Your task to perform on an android device: Search for flights from NYC to London Image 0: 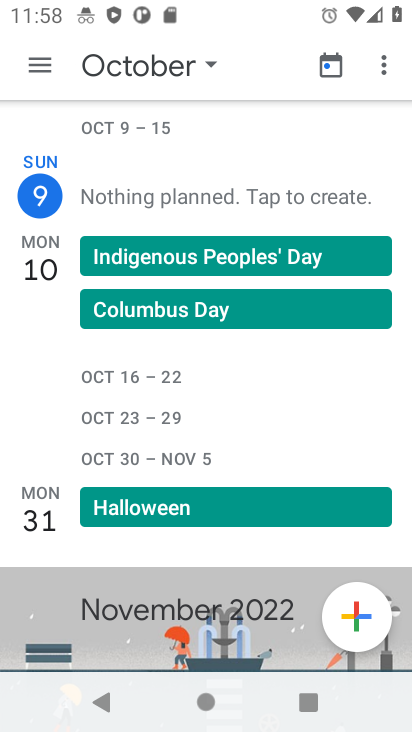
Step 0: press home button
Your task to perform on an android device: Search for flights from NYC to London Image 1: 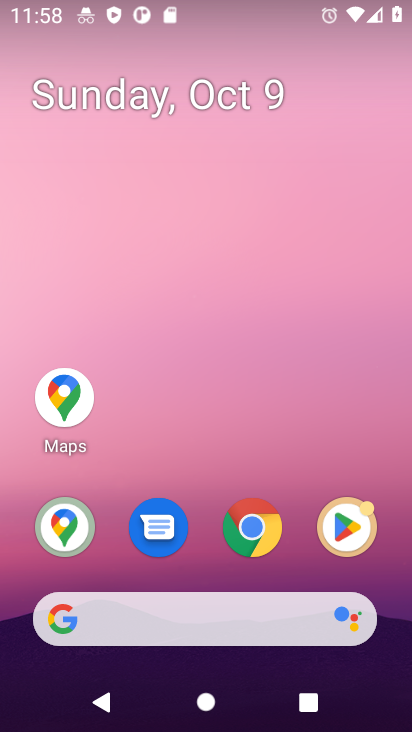
Step 1: click (271, 532)
Your task to perform on an android device: Search for flights from NYC to London Image 2: 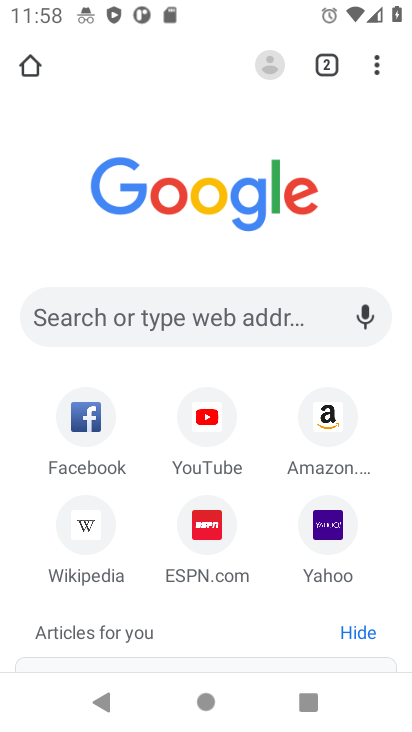
Step 2: click (211, 324)
Your task to perform on an android device: Search for flights from NYC to London Image 3: 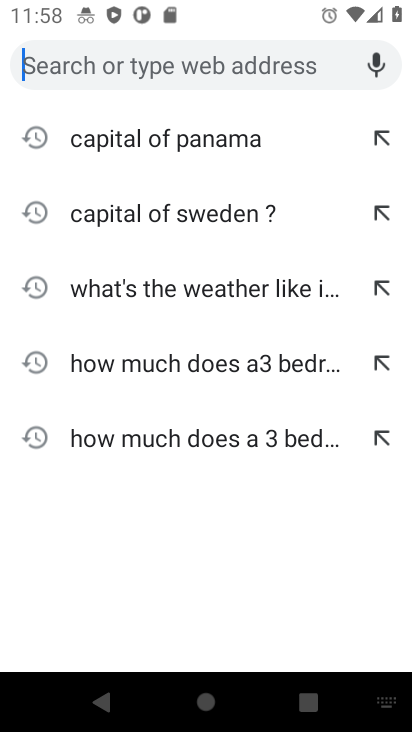
Step 3: type " flights from NYC to London"
Your task to perform on an android device: Search for flights from NYC to London Image 4: 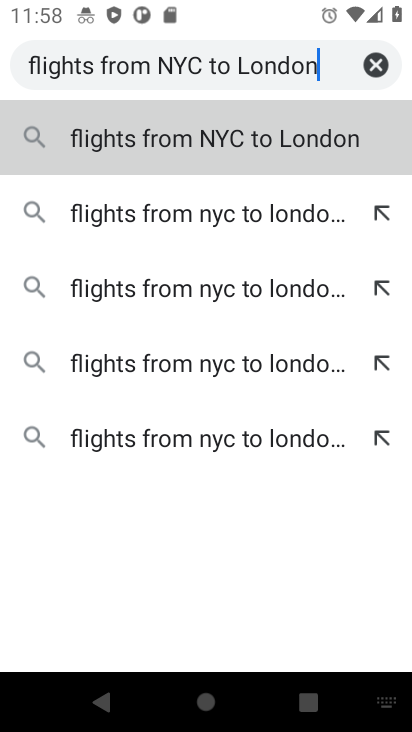
Step 4: click (276, 157)
Your task to perform on an android device: Search for flights from NYC to London Image 5: 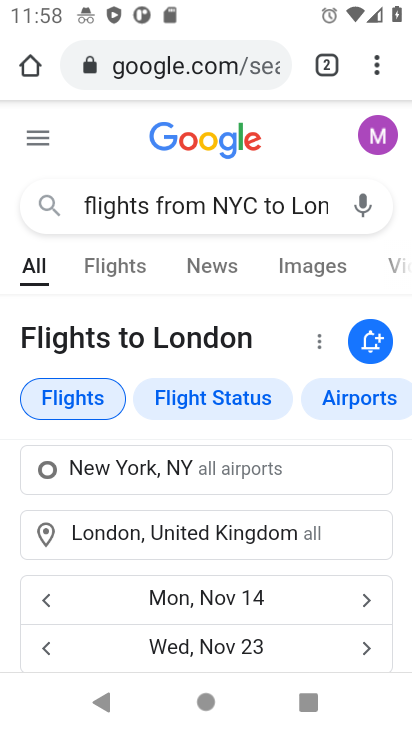
Step 5: task complete